Your task to perform on an android device: Show me recent news Image 0: 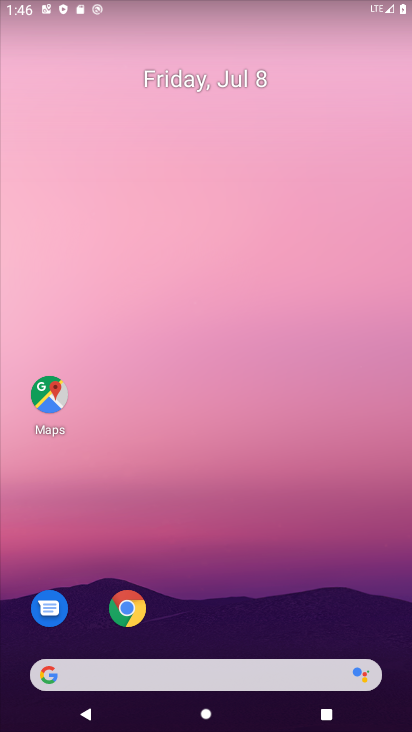
Step 0: drag from (6, 263) to (404, 412)
Your task to perform on an android device: Show me recent news Image 1: 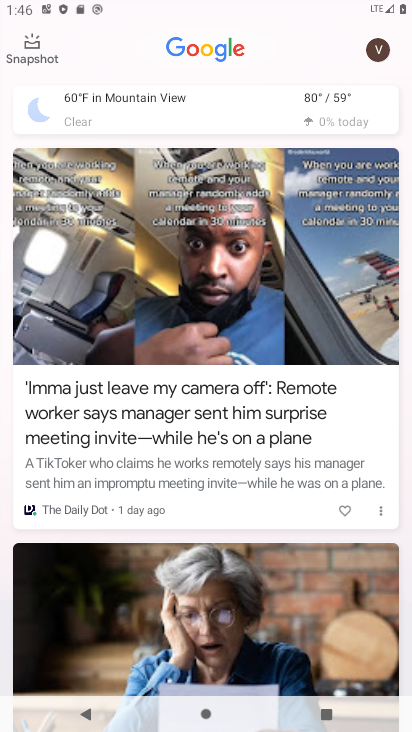
Step 1: task complete